Your task to perform on an android device: Open calendar and show me the fourth week of next month Image 0: 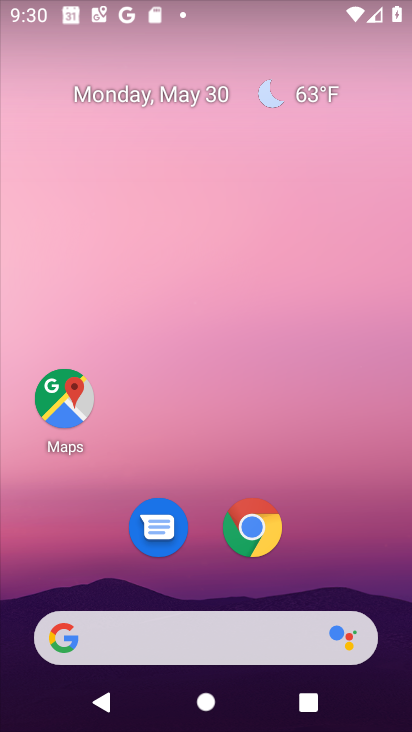
Step 0: drag from (332, 558) to (324, 220)
Your task to perform on an android device: Open calendar and show me the fourth week of next month Image 1: 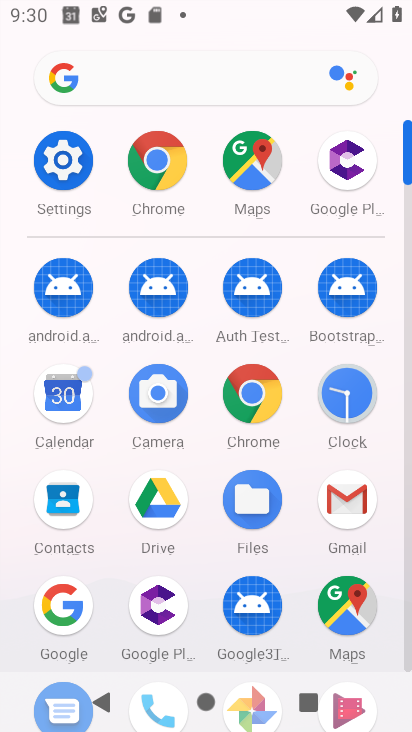
Step 1: click (51, 394)
Your task to perform on an android device: Open calendar and show me the fourth week of next month Image 2: 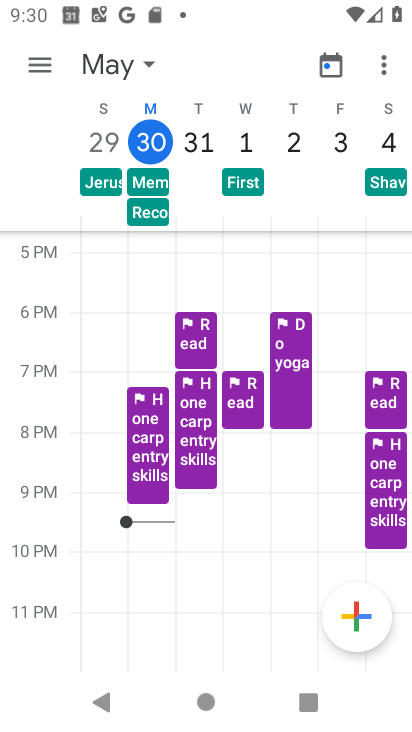
Step 2: click (51, 55)
Your task to perform on an android device: Open calendar and show me the fourth week of next month Image 3: 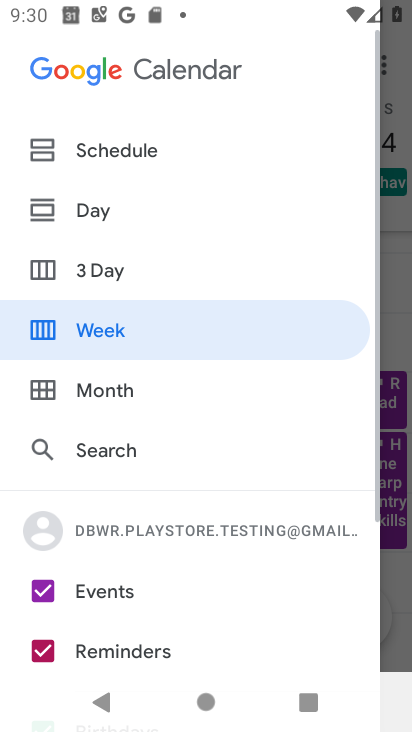
Step 3: click (96, 392)
Your task to perform on an android device: Open calendar and show me the fourth week of next month Image 4: 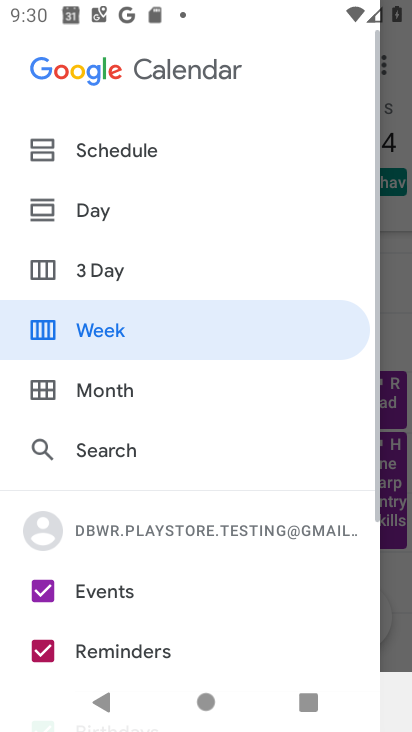
Step 4: click (118, 372)
Your task to perform on an android device: Open calendar and show me the fourth week of next month Image 5: 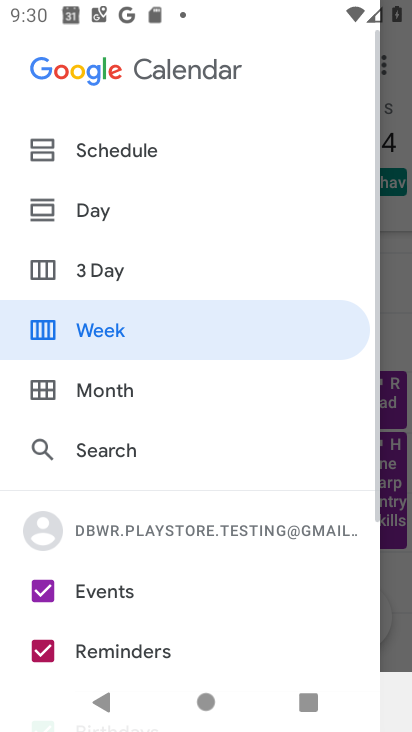
Step 5: click (119, 396)
Your task to perform on an android device: Open calendar and show me the fourth week of next month Image 6: 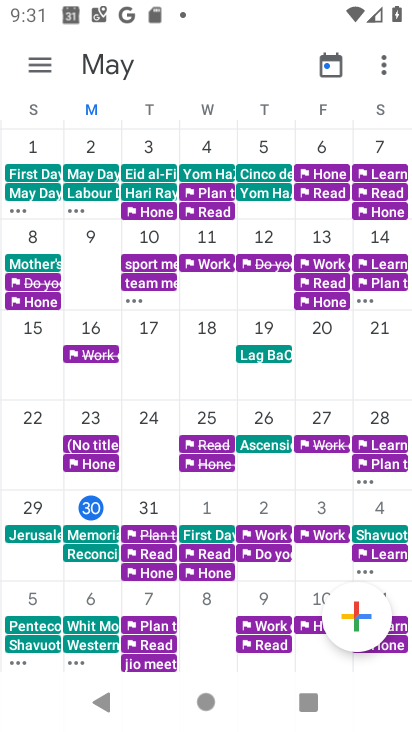
Step 6: task complete